Your task to perform on an android device: open app "Nova Launcher" (install if not already installed), go to login, and select forgot password Image 0: 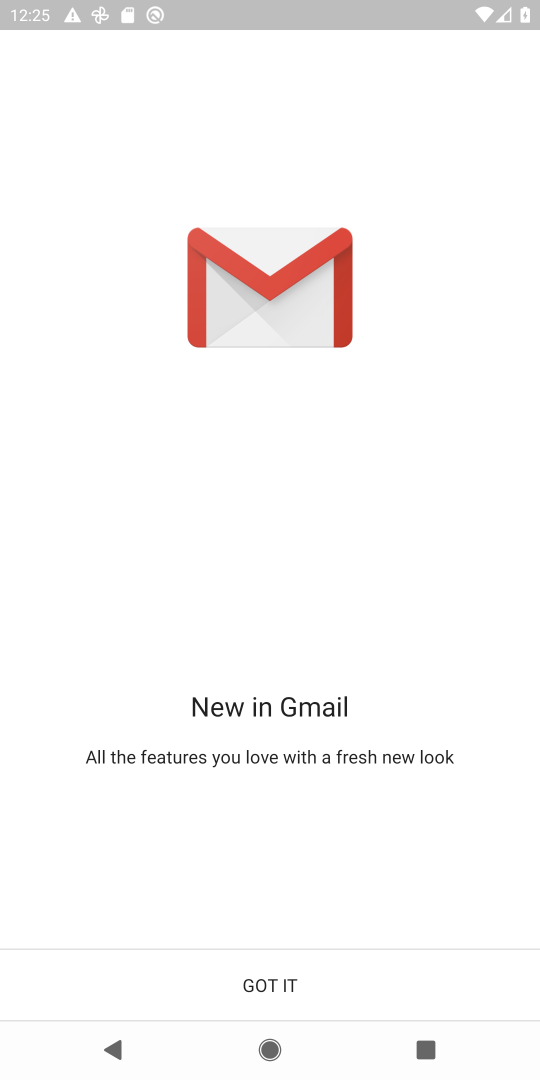
Step 0: press home button
Your task to perform on an android device: open app "Nova Launcher" (install if not already installed), go to login, and select forgot password Image 1: 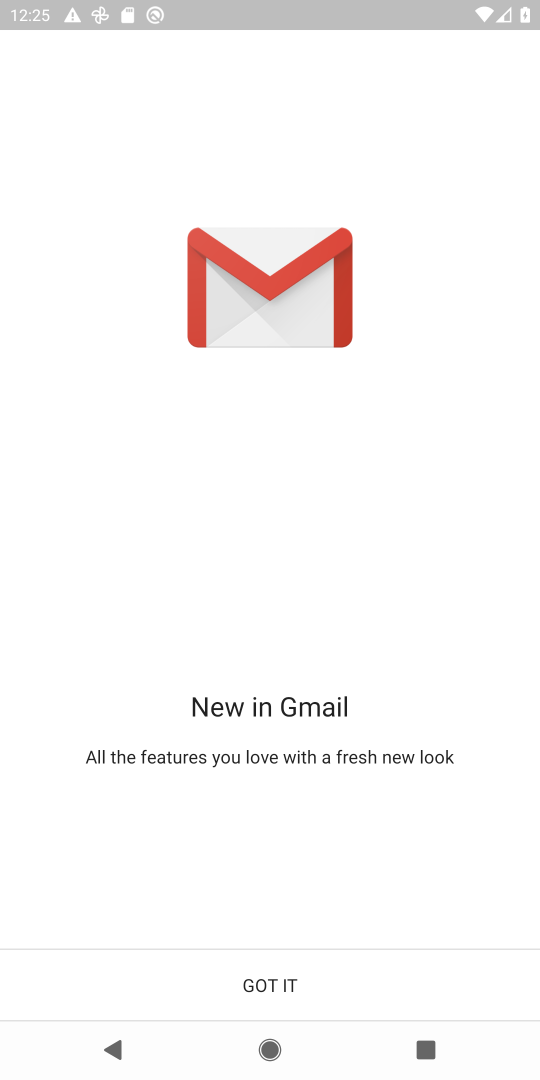
Step 1: press home button
Your task to perform on an android device: open app "Nova Launcher" (install if not already installed), go to login, and select forgot password Image 2: 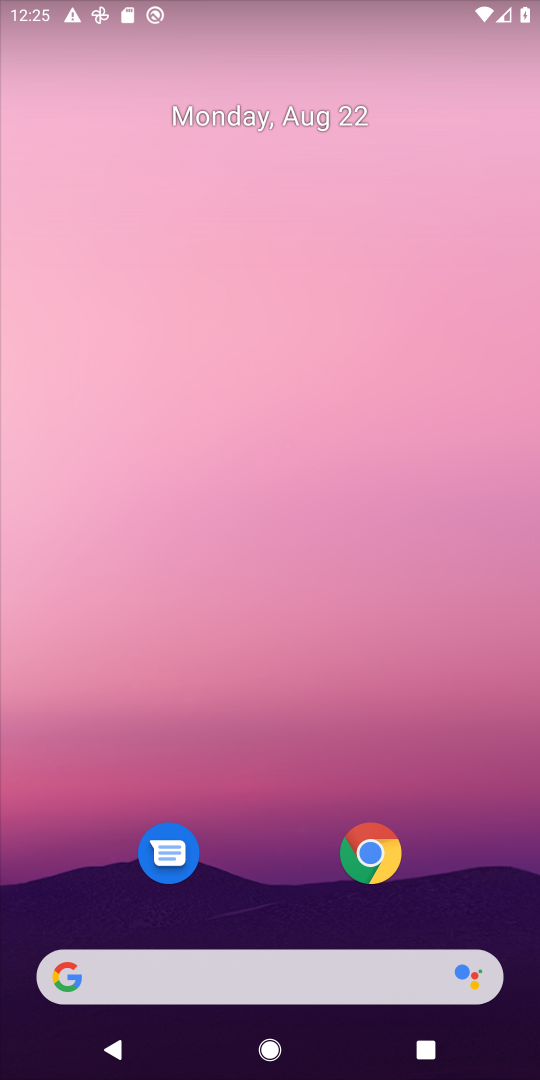
Step 2: drag from (258, 915) to (272, 5)
Your task to perform on an android device: open app "Nova Launcher" (install if not already installed), go to login, and select forgot password Image 3: 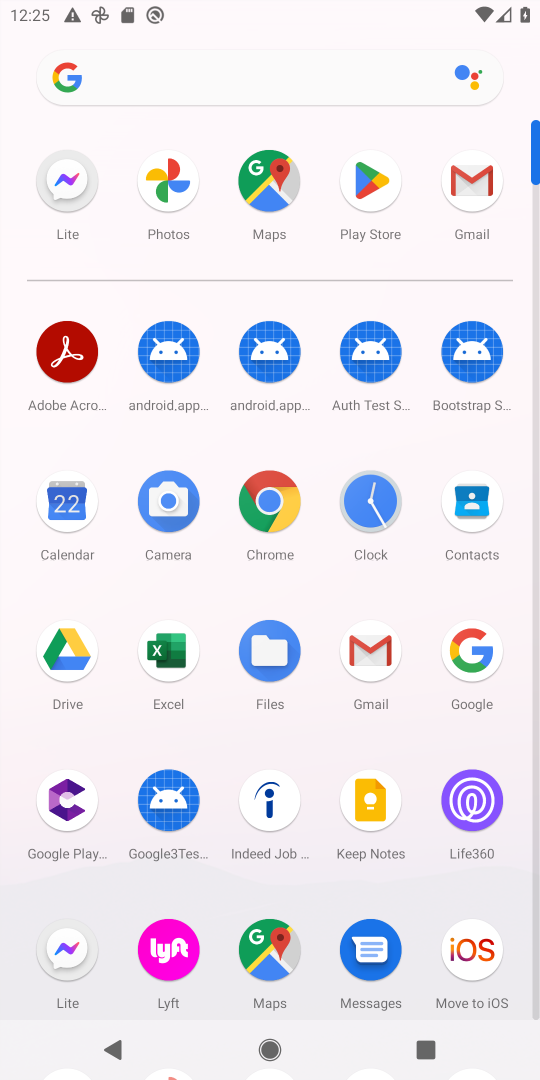
Step 3: click (367, 165)
Your task to perform on an android device: open app "Nova Launcher" (install if not already installed), go to login, and select forgot password Image 4: 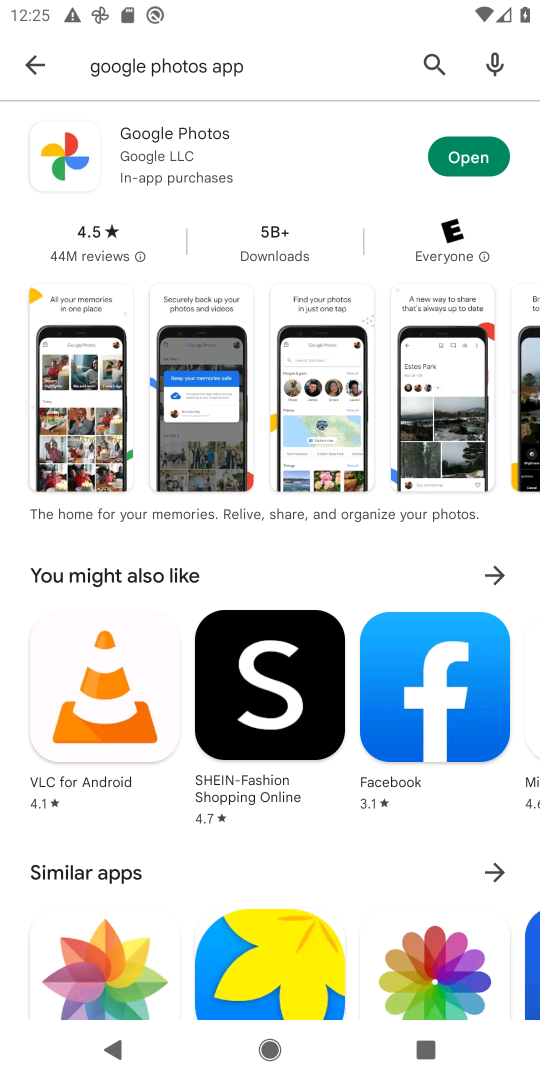
Step 4: click (54, 63)
Your task to perform on an android device: open app "Nova Launcher" (install if not already installed), go to login, and select forgot password Image 5: 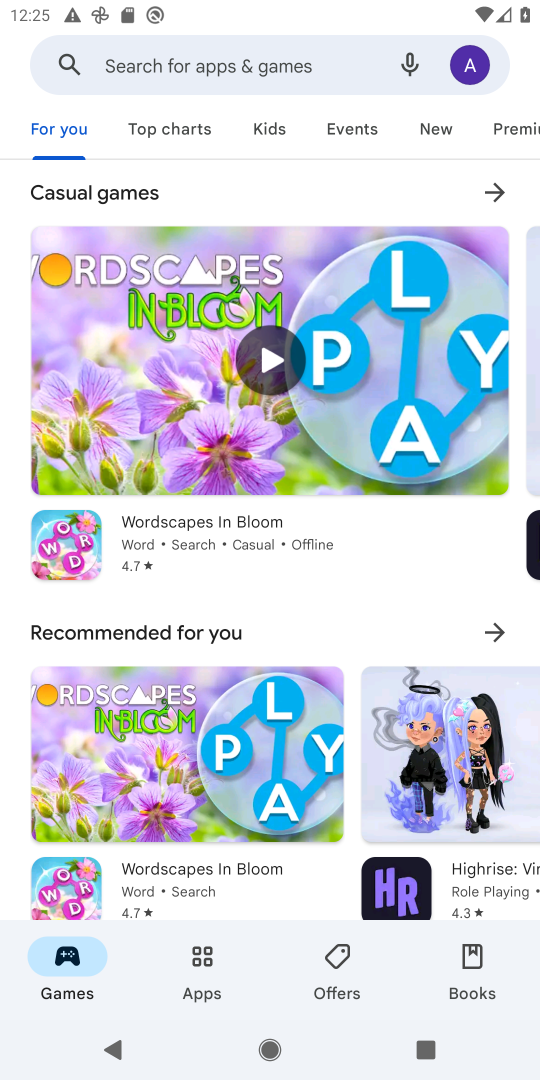
Step 5: click (305, 59)
Your task to perform on an android device: open app "Nova Launcher" (install if not already installed), go to login, and select forgot password Image 6: 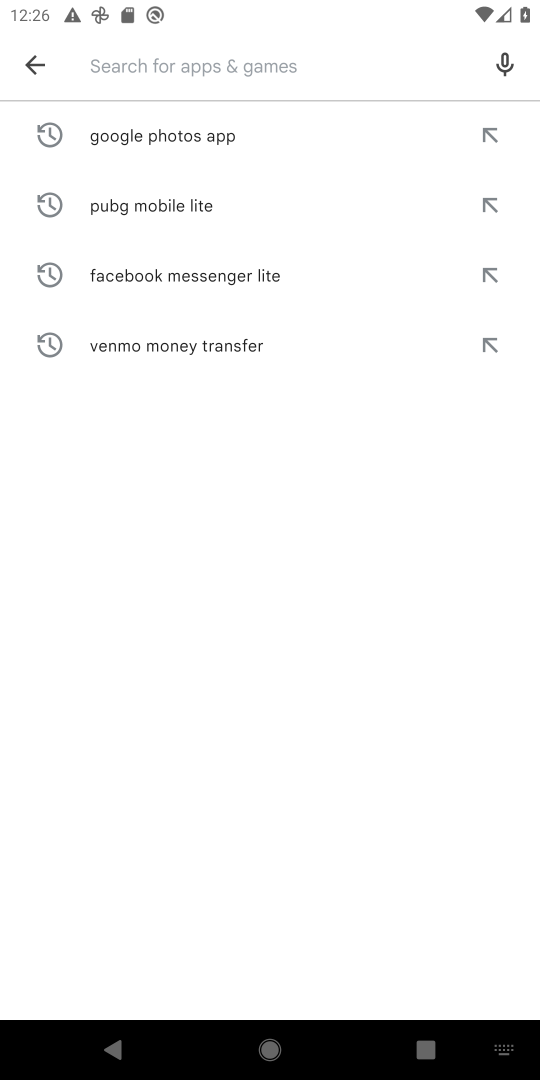
Step 6: type "Nova Launcher "
Your task to perform on an android device: open app "Nova Launcher" (install if not already installed), go to login, and select forgot password Image 7: 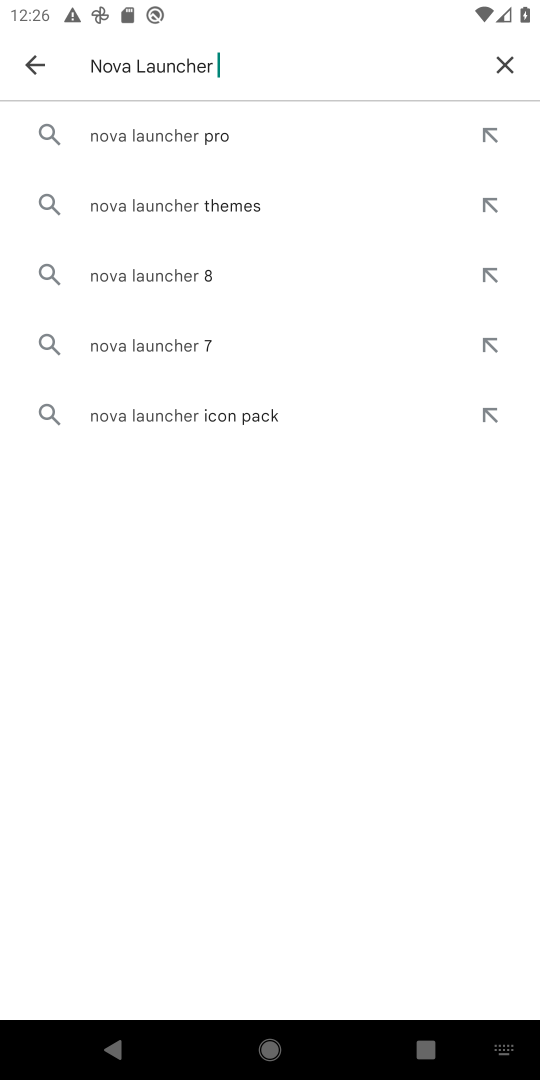
Step 7: click (112, 146)
Your task to perform on an android device: open app "Nova Launcher" (install if not already installed), go to login, and select forgot password Image 8: 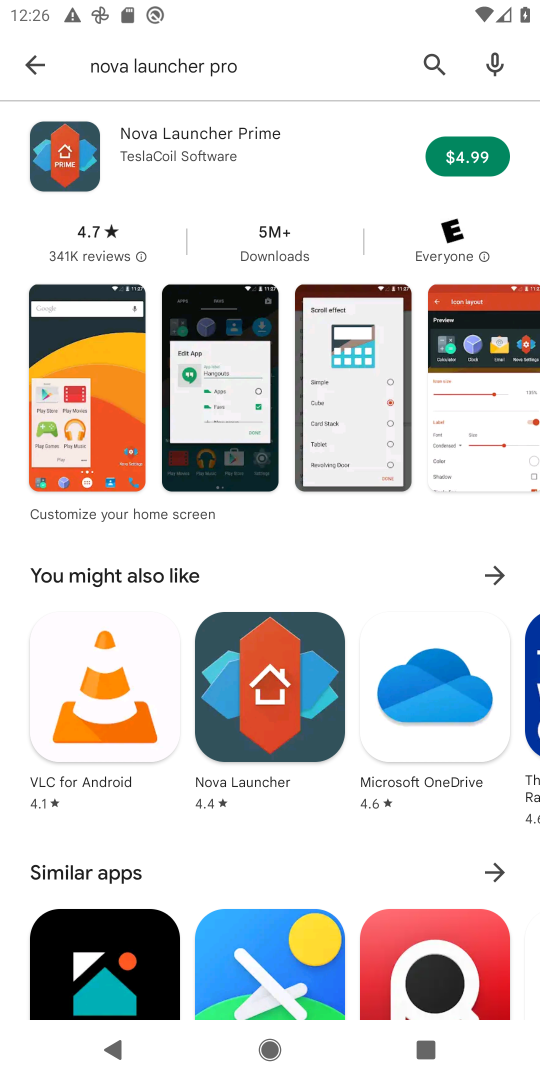
Step 8: task complete